Your task to perform on an android device: turn off picture-in-picture Image 0: 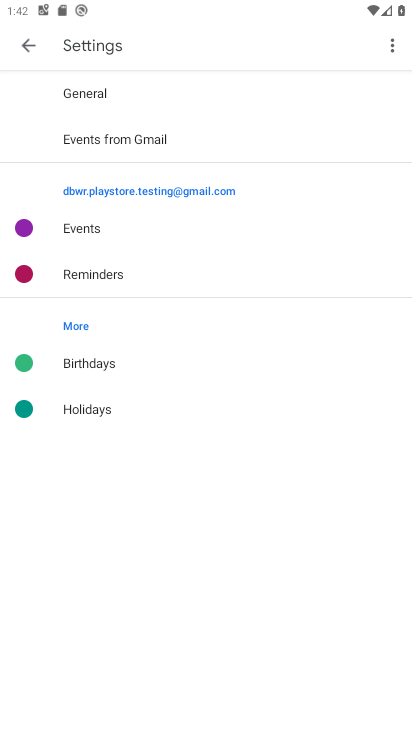
Step 0: press home button
Your task to perform on an android device: turn off picture-in-picture Image 1: 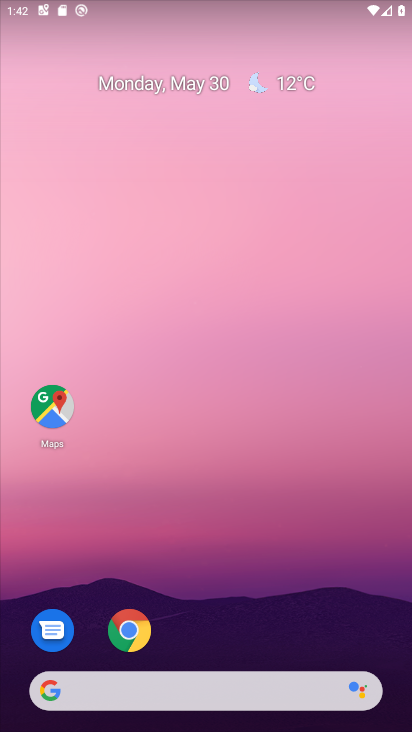
Step 1: click (124, 638)
Your task to perform on an android device: turn off picture-in-picture Image 2: 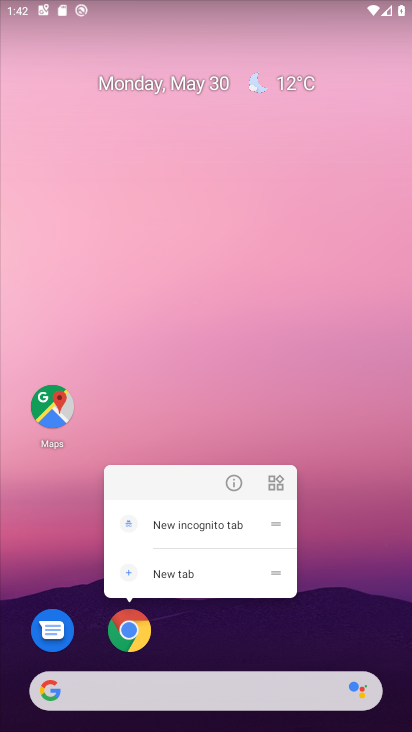
Step 2: click (227, 487)
Your task to perform on an android device: turn off picture-in-picture Image 3: 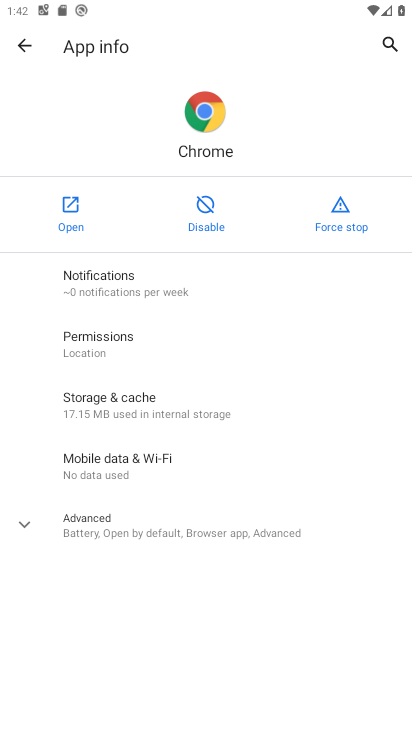
Step 3: click (138, 534)
Your task to perform on an android device: turn off picture-in-picture Image 4: 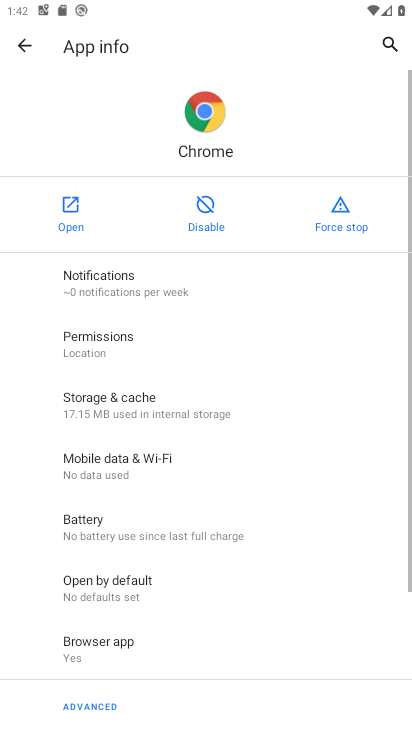
Step 4: drag from (157, 598) to (187, 302)
Your task to perform on an android device: turn off picture-in-picture Image 5: 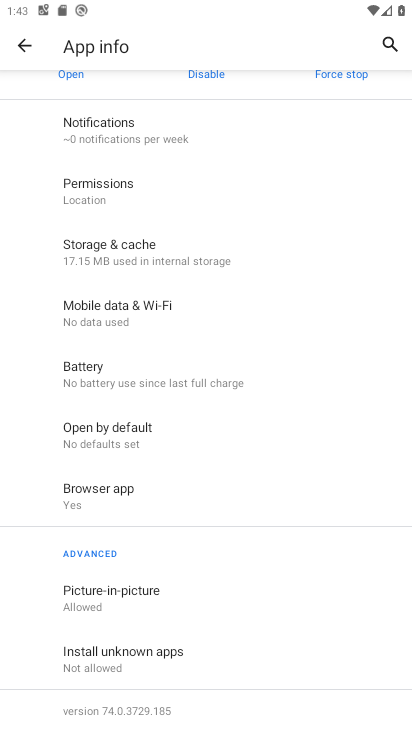
Step 5: click (178, 618)
Your task to perform on an android device: turn off picture-in-picture Image 6: 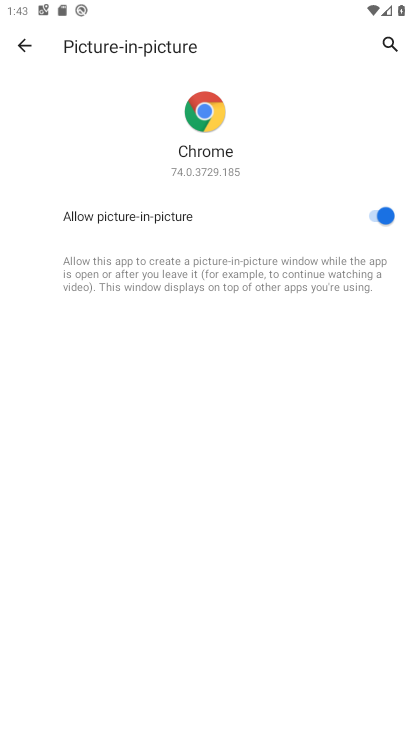
Step 6: click (374, 211)
Your task to perform on an android device: turn off picture-in-picture Image 7: 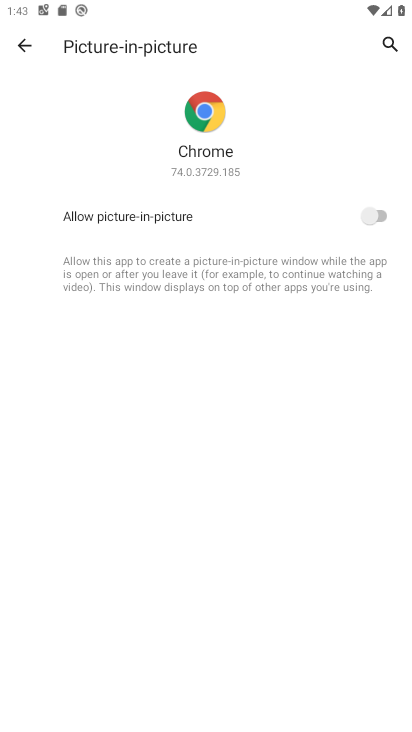
Step 7: task complete